Your task to perform on an android device: Open Maps and search for coffee Image 0: 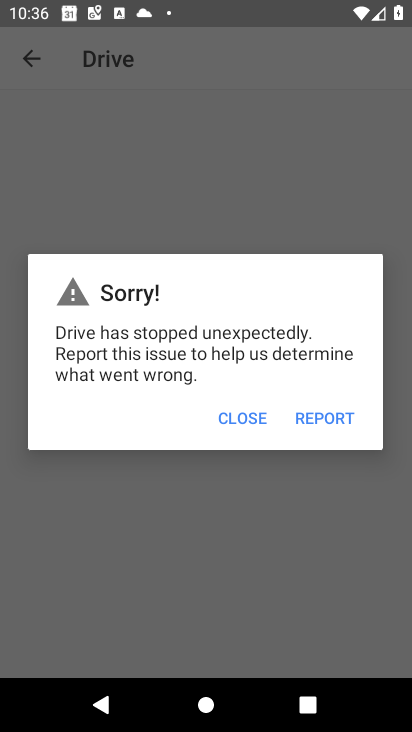
Step 0: press home button
Your task to perform on an android device: Open Maps and search for coffee Image 1: 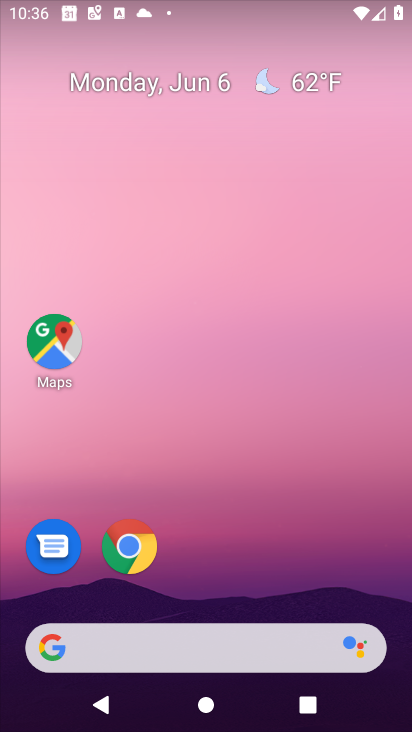
Step 1: click (55, 343)
Your task to perform on an android device: Open Maps and search for coffee Image 2: 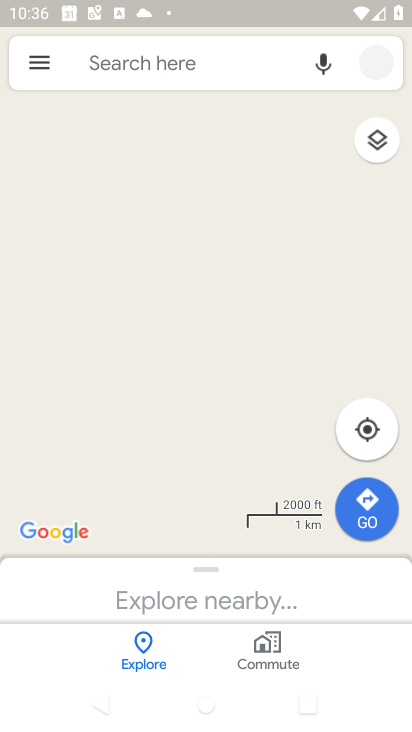
Step 2: click (176, 50)
Your task to perform on an android device: Open Maps and search for coffee Image 3: 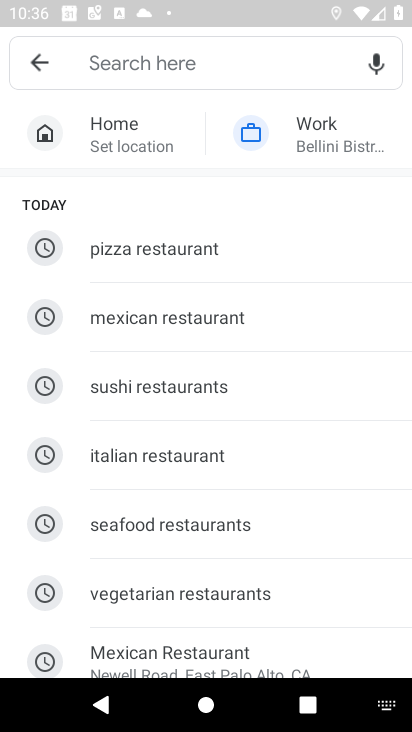
Step 3: type "coffee"
Your task to perform on an android device: Open Maps and search for coffee Image 4: 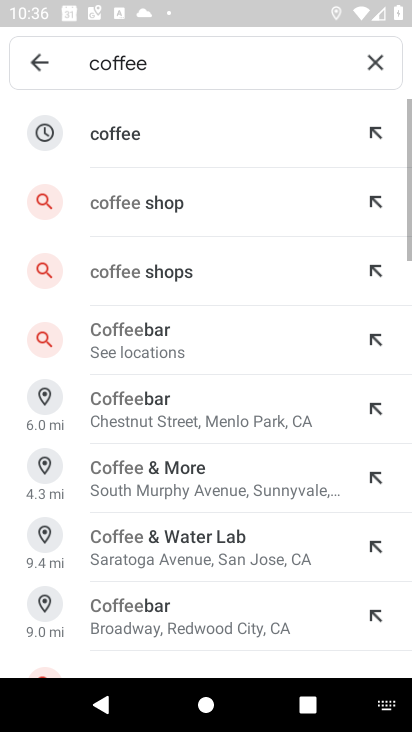
Step 4: click (134, 129)
Your task to perform on an android device: Open Maps and search for coffee Image 5: 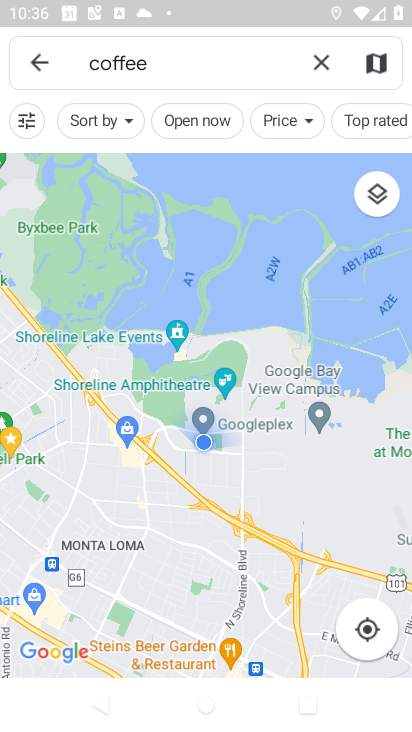
Step 5: task complete